Your task to perform on an android device: turn on bluetooth scan Image 0: 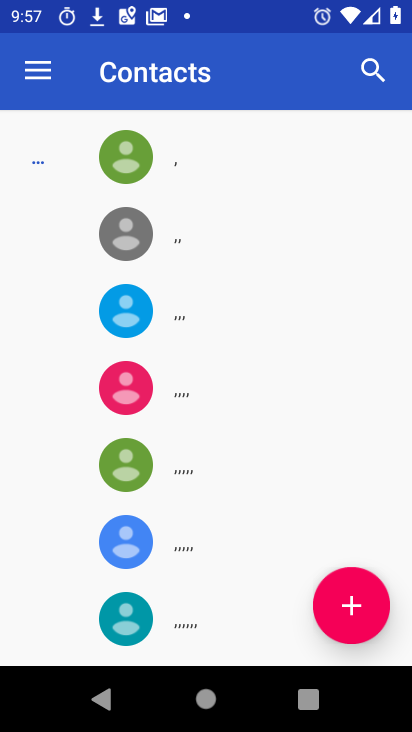
Step 0: press home button
Your task to perform on an android device: turn on bluetooth scan Image 1: 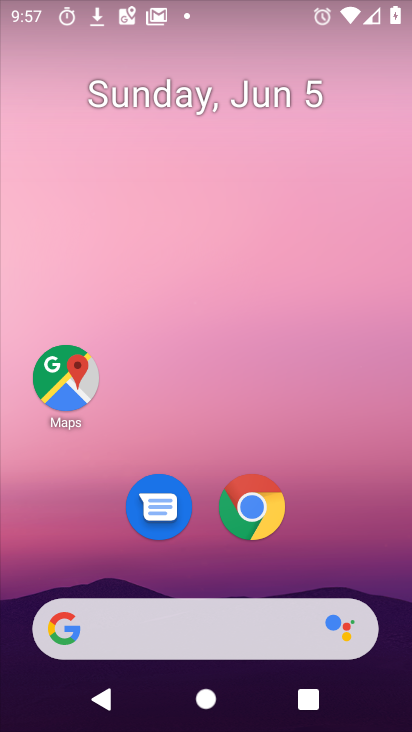
Step 1: drag from (224, 664) to (256, 162)
Your task to perform on an android device: turn on bluetooth scan Image 2: 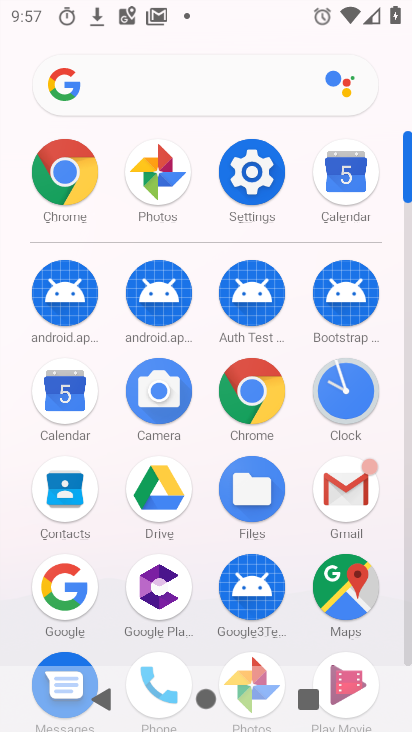
Step 2: click (270, 153)
Your task to perform on an android device: turn on bluetooth scan Image 3: 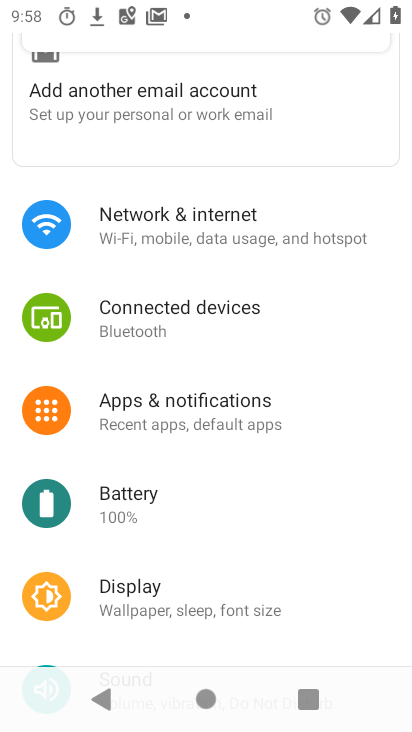
Step 3: drag from (177, 114) to (179, 280)
Your task to perform on an android device: turn on bluetooth scan Image 4: 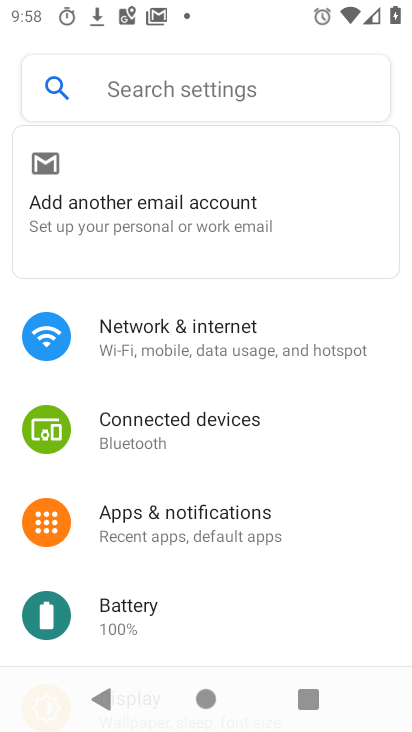
Step 4: click (179, 95)
Your task to perform on an android device: turn on bluetooth scan Image 5: 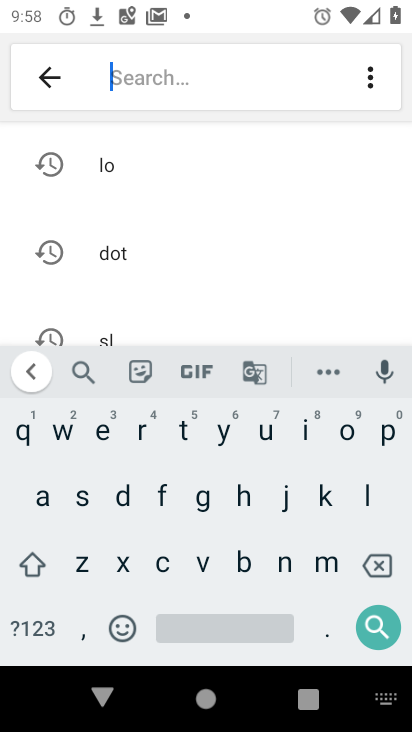
Step 5: click (120, 183)
Your task to perform on an android device: turn on bluetooth scan Image 6: 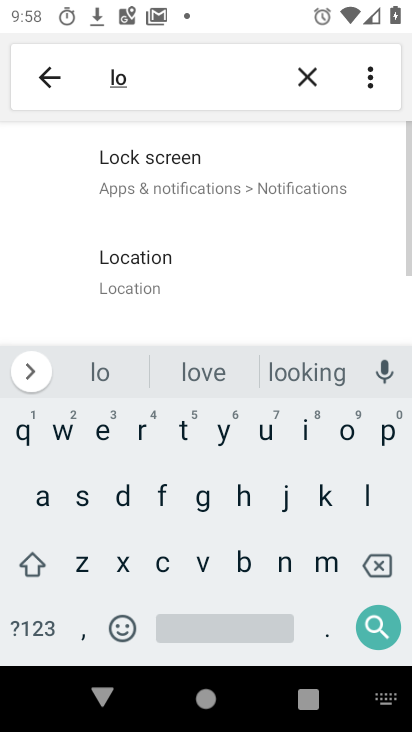
Step 6: click (143, 267)
Your task to perform on an android device: turn on bluetooth scan Image 7: 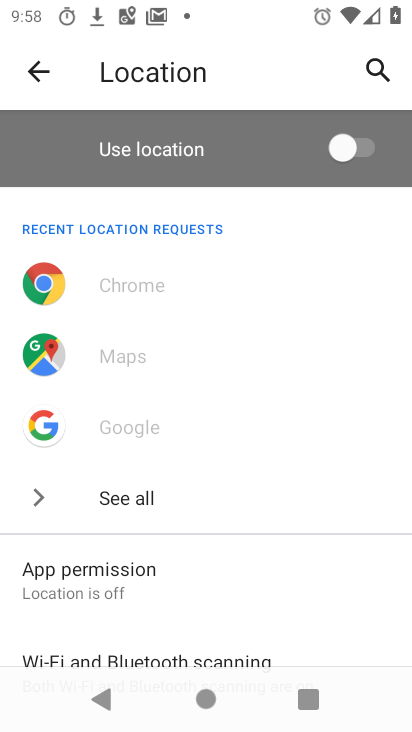
Step 7: drag from (279, 571) to (238, 345)
Your task to perform on an android device: turn on bluetooth scan Image 8: 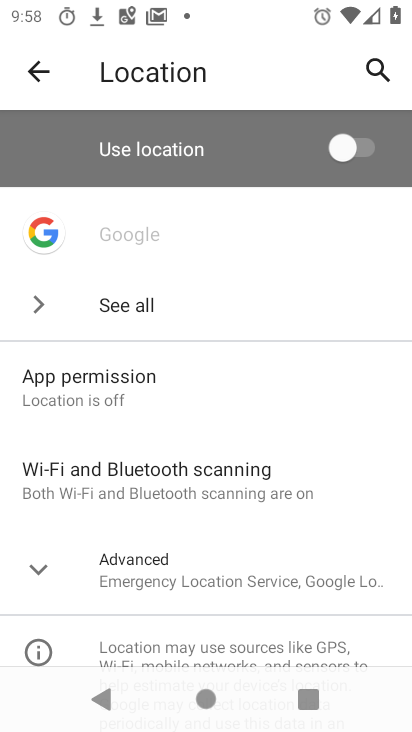
Step 8: click (216, 489)
Your task to perform on an android device: turn on bluetooth scan Image 9: 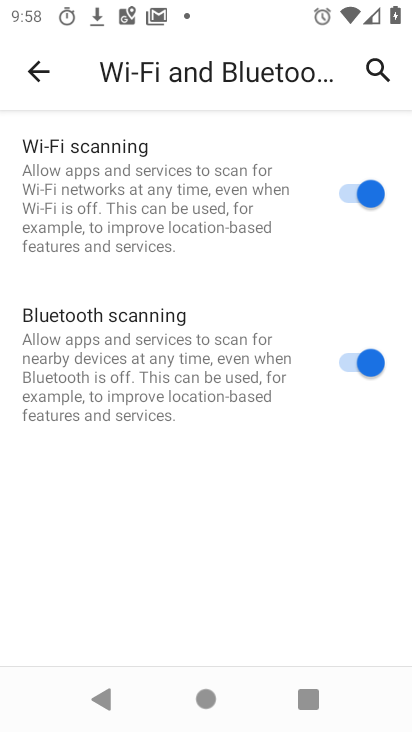
Step 9: click (355, 352)
Your task to perform on an android device: turn on bluetooth scan Image 10: 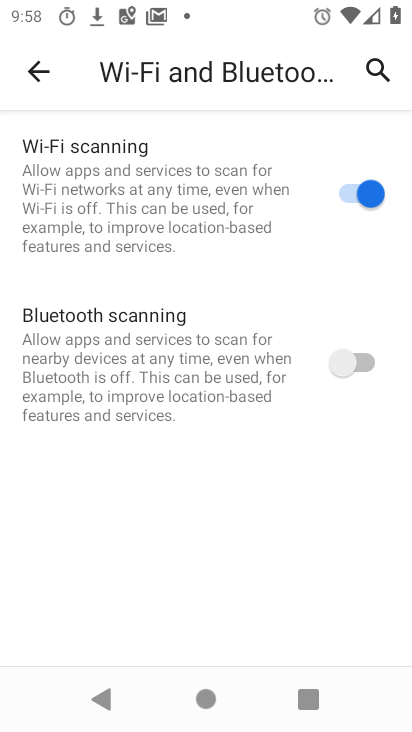
Step 10: click (348, 355)
Your task to perform on an android device: turn on bluetooth scan Image 11: 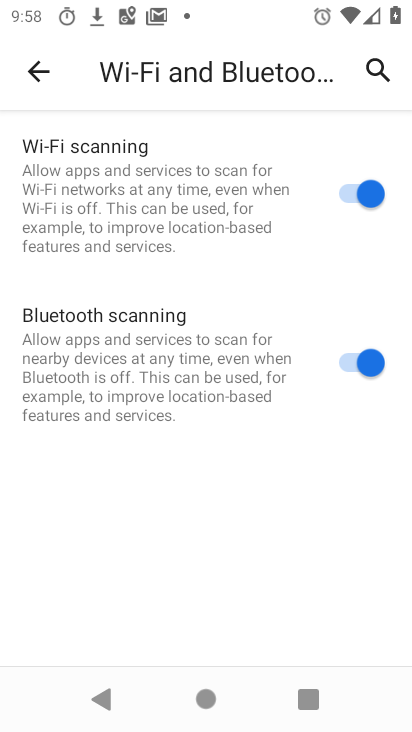
Step 11: task complete